Your task to perform on an android device: open app "DoorDash - Dasher" (install if not already installed) Image 0: 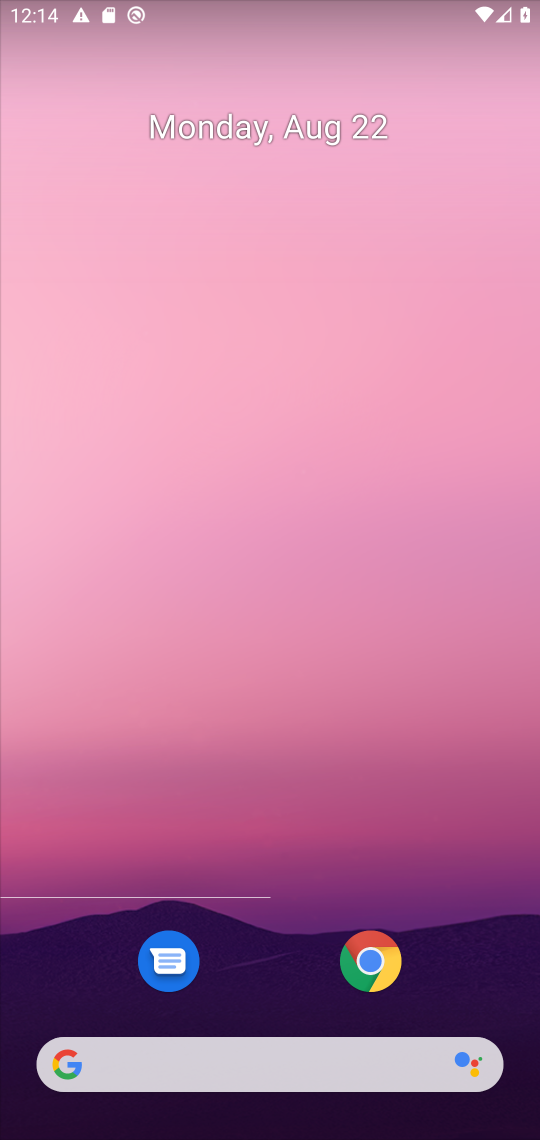
Step 0: press home button
Your task to perform on an android device: open app "DoorDash - Dasher" (install if not already installed) Image 1: 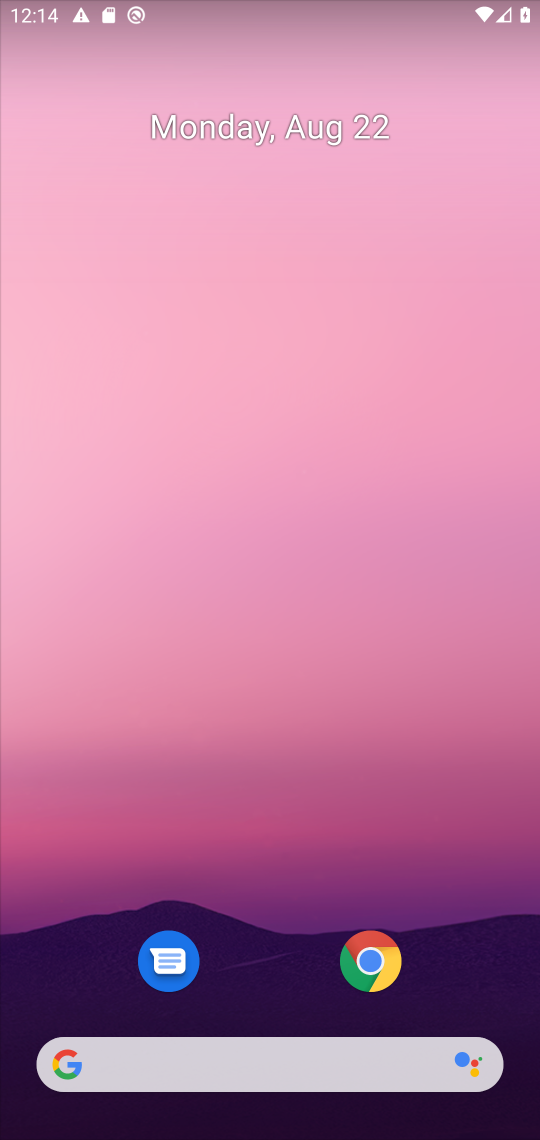
Step 1: drag from (479, 946) to (462, 145)
Your task to perform on an android device: open app "DoorDash - Dasher" (install if not already installed) Image 2: 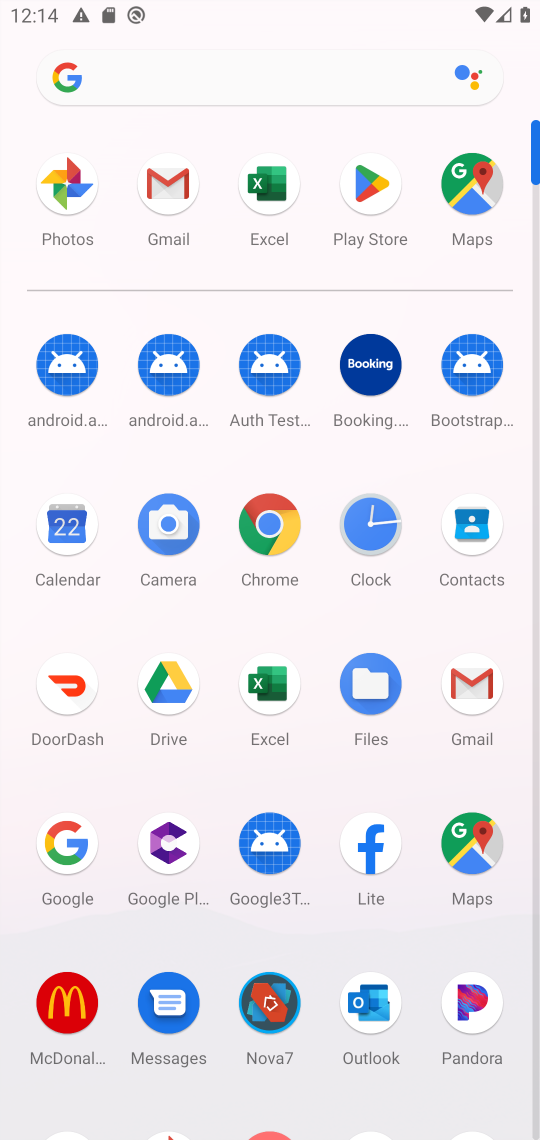
Step 2: click (379, 177)
Your task to perform on an android device: open app "DoorDash - Dasher" (install if not already installed) Image 3: 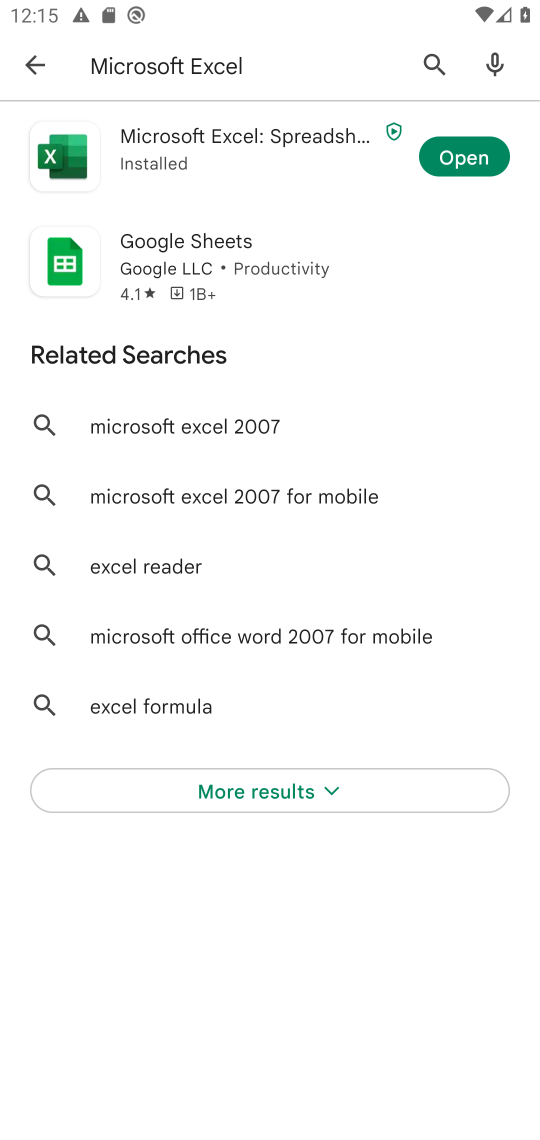
Step 3: press back button
Your task to perform on an android device: open app "DoorDash - Dasher" (install if not already installed) Image 4: 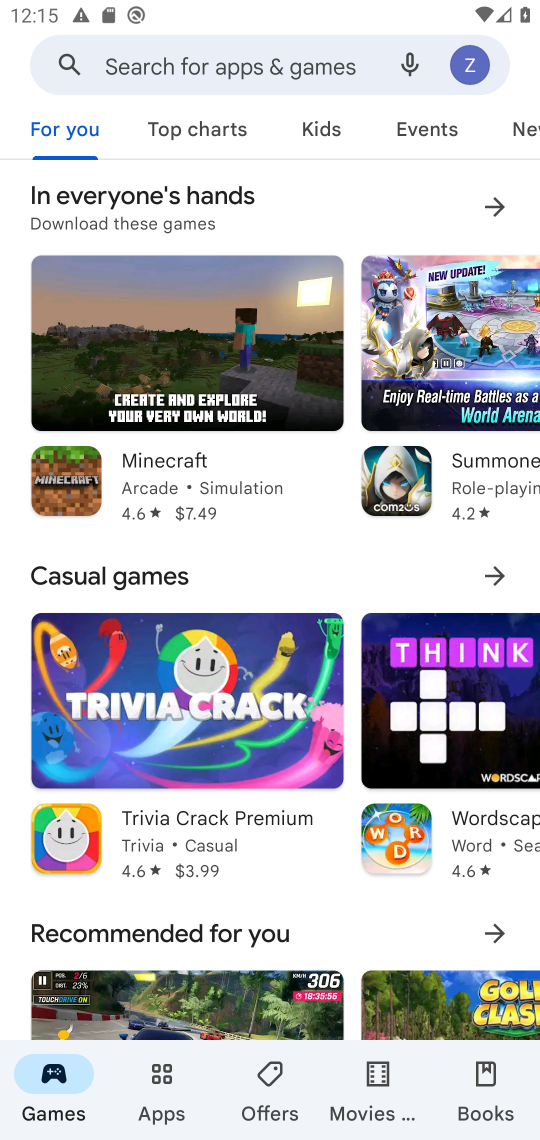
Step 4: click (301, 62)
Your task to perform on an android device: open app "DoorDash - Dasher" (install if not already installed) Image 5: 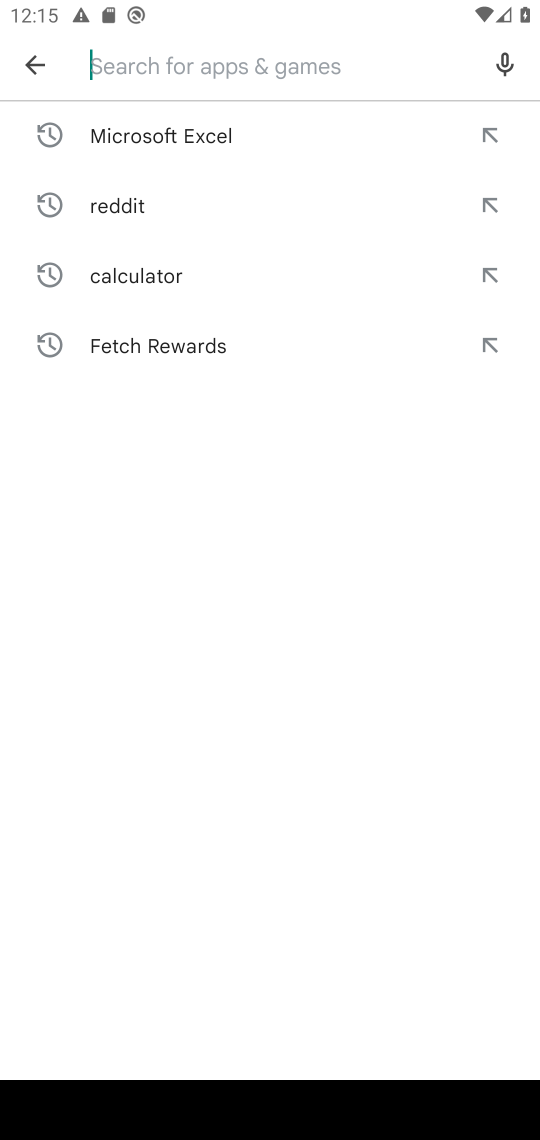
Step 5: type "DoorDash - Dasher"
Your task to perform on an android device: open app "DoorDash - Dasher" (install if not already installed) Image 6: 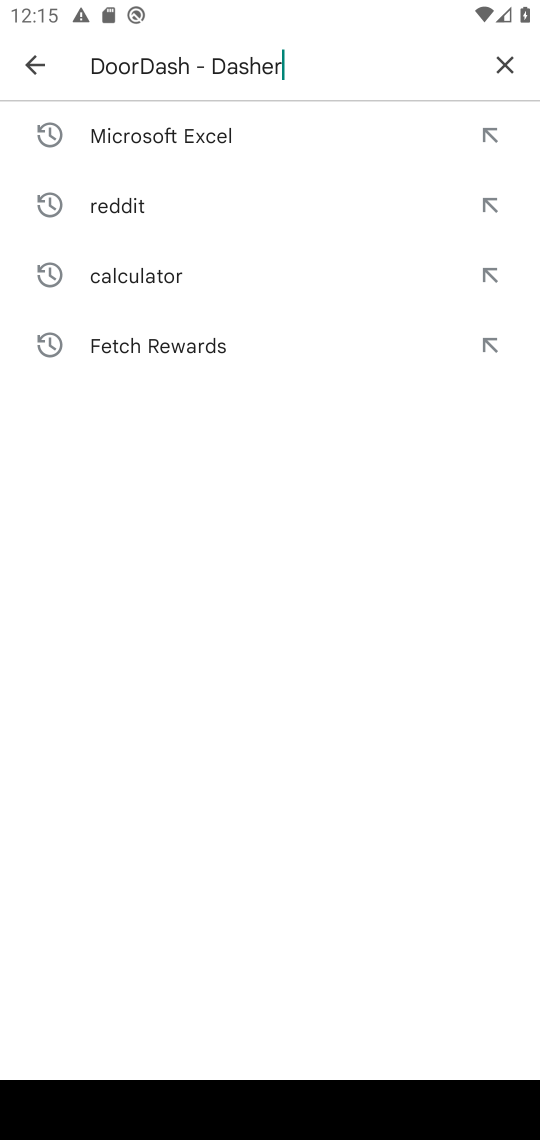
Step 6: press enter
Your task to perform on an android device: open app "DoorDash - Dasher" (install if not already installed) Image 7: 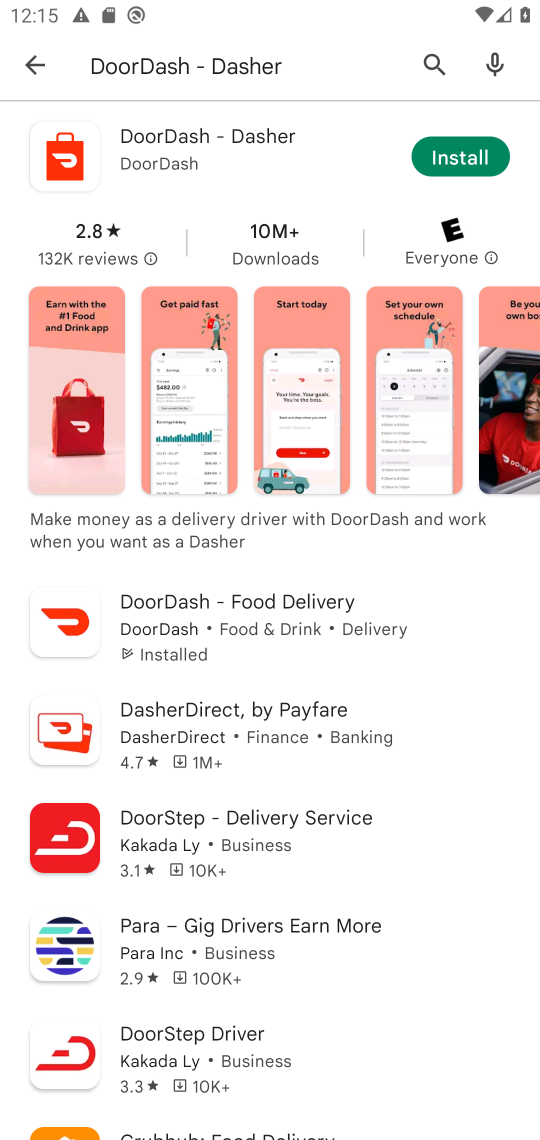
Step 7: click (474, 156)
Your task to perform on an android device: open app "DoorDash - Dasher" (install if not already installed) Image 8: 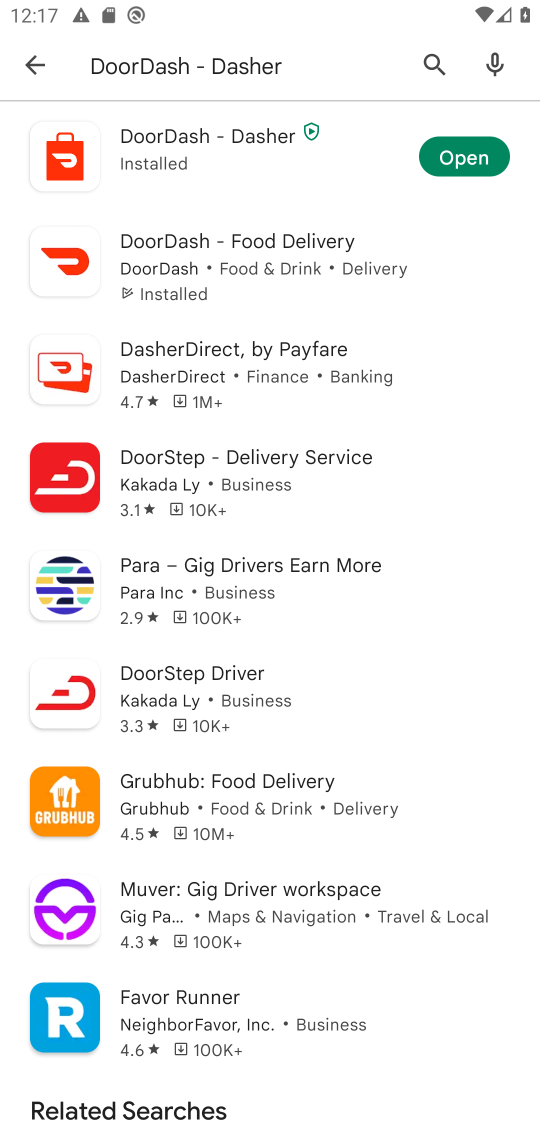
Step 8: click (473, 167)
Your task to perform on an android device: open app "DoorDash - Dasher" (install if not already installed) Image 9: 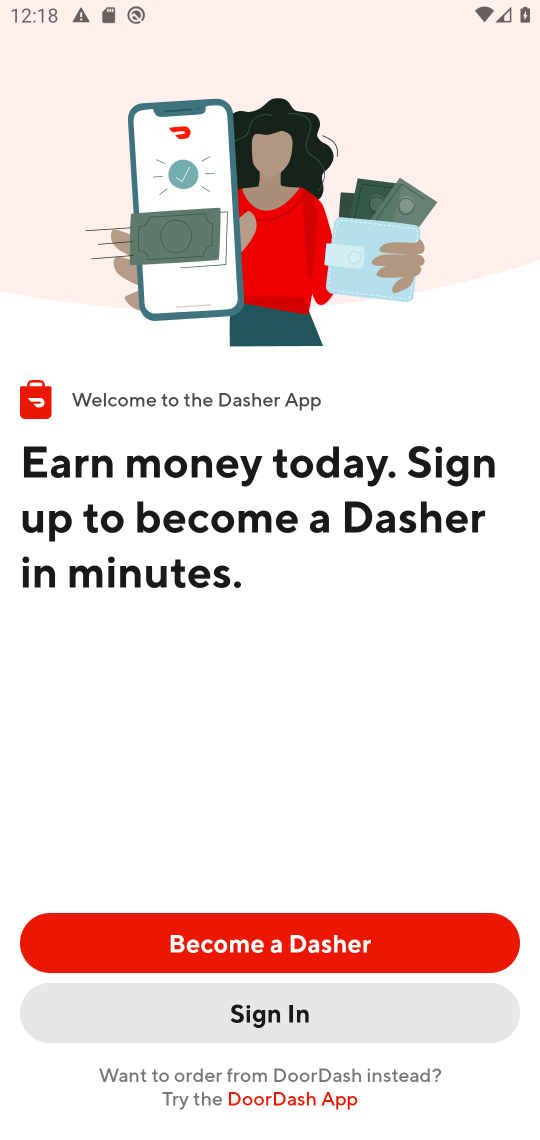
Step 9: task complete